Your task to perform on an android device: Open settings Image 0: 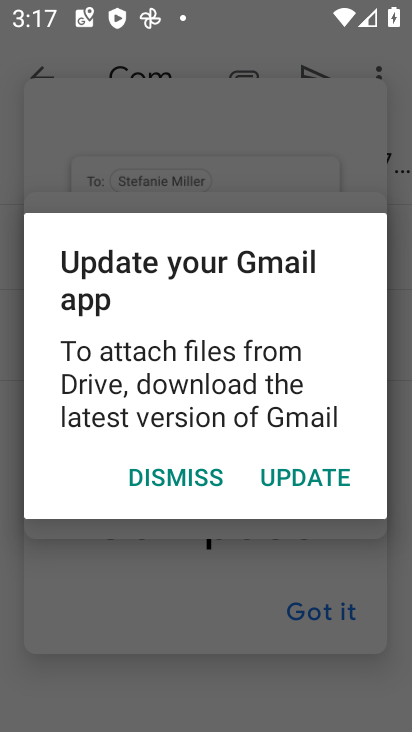
Step 0: press home button
Your task to perform on an android device: Open settings Image 1: 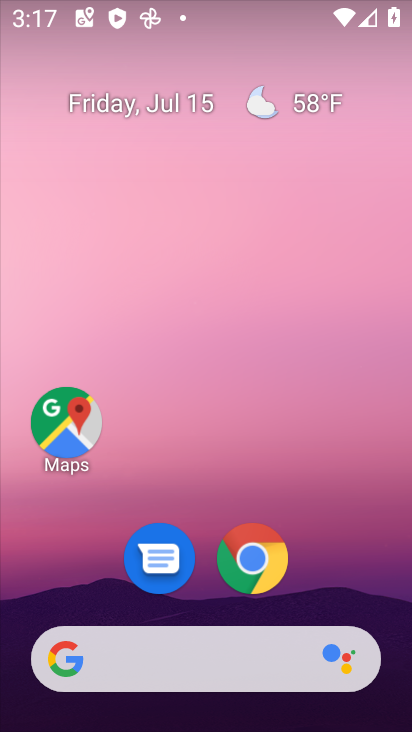
Step 1: drag from (352, 575) to (332, 59)
Your task to perform on an android device: Open settings Image 2: 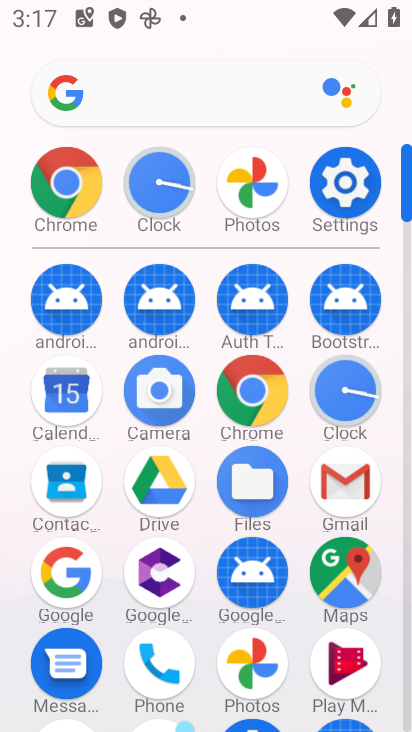
Step 2: click (363, 190)
Your task to perform on an android device: Open settings Image 3: 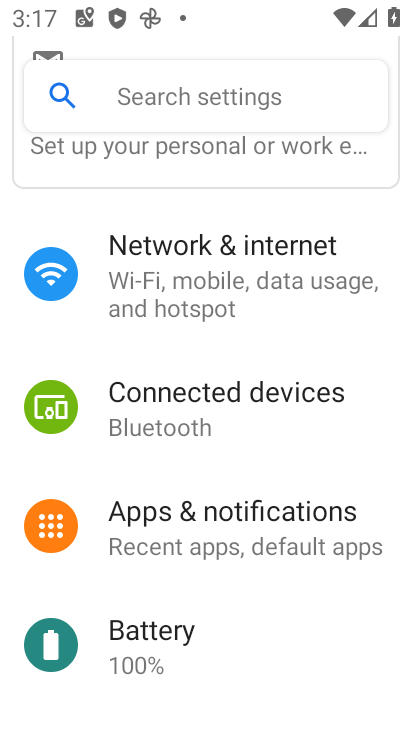
Step 3: task complete